Your task to perform on an android device: Set the phone to "Do not disturb". Image 0: 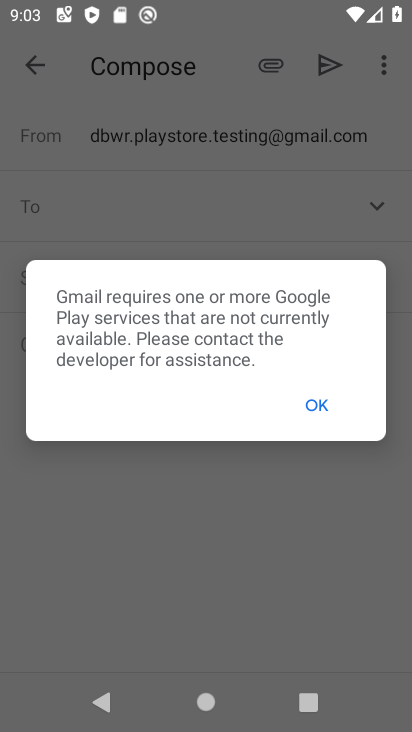
Step 0: click (308, 396)
Your task to perform on an android device: Set the phone to "Do not disturb". Image 1: 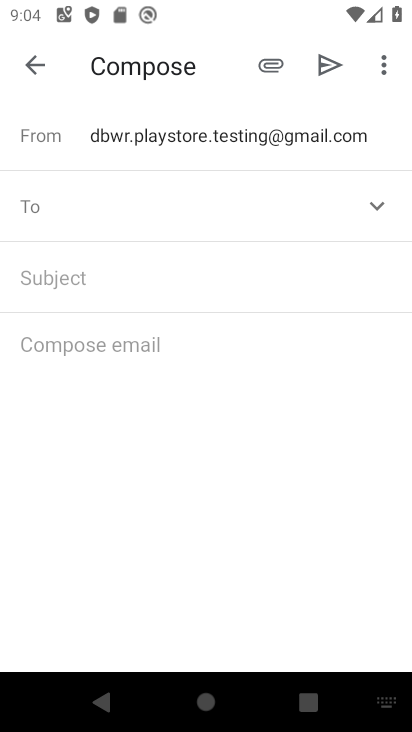
Step 1: click (25, 65)
Your task to perform on an android device: Set the phone to "Do not disturb". Image 2: 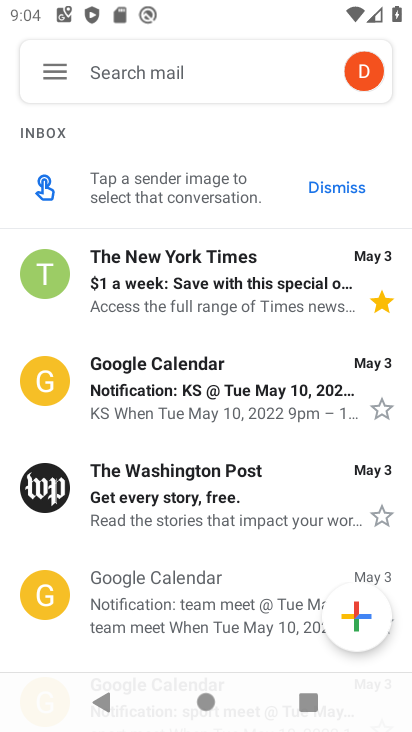
Step 2: press home button
Your task to perform on an android device: Set the phone to "Do not disturb". Image 3: 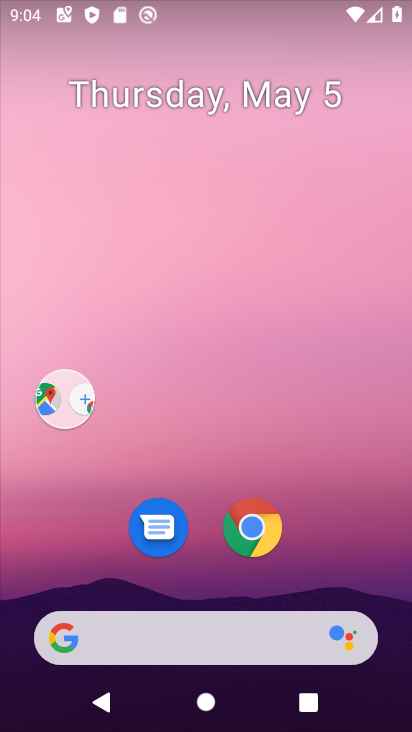
Step 3: drag from (258, 683) to (134, 85)
Your task to perform on an android device: Set the phone to "Do not disturb". Image 4: 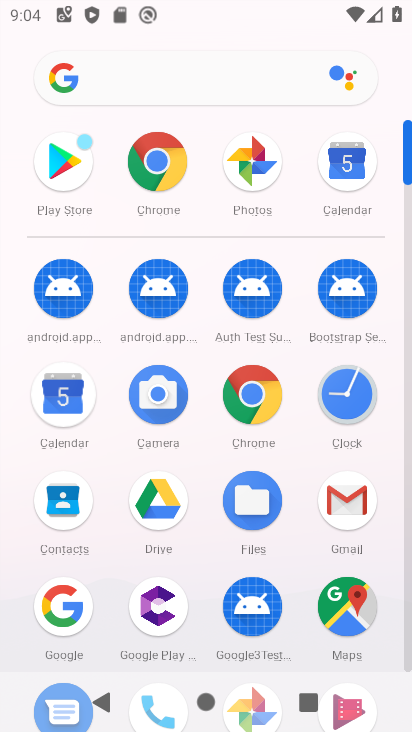
Step 4: drag from (198, 630) to (173, 236)
Your task to perform on an android device: Set the phone to "Do not disturb". Image 5: 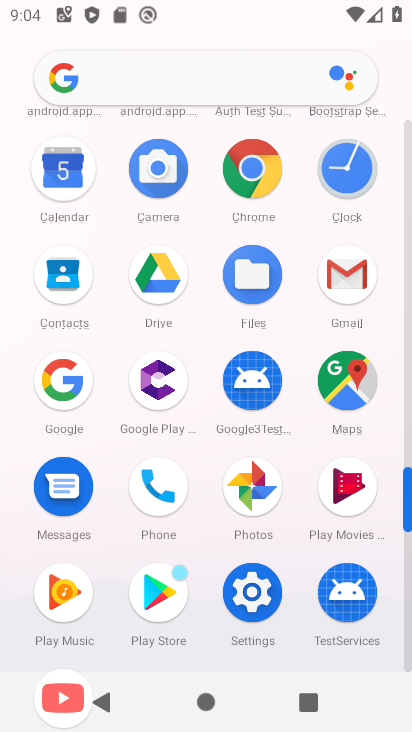
Step 5: click (242, 586)
Your task to perform on an android device: Set the phone to "Do not disturb". Image 6: 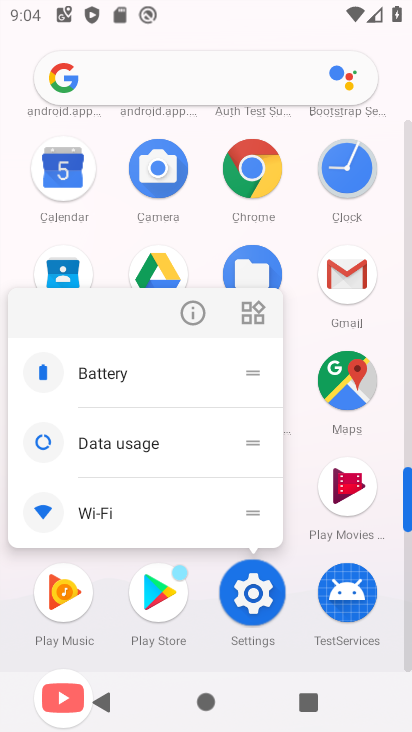
Step 6: click (242, 586)
Your task to perform on an android device: Set the phone to "Do not disturb". Image 7: 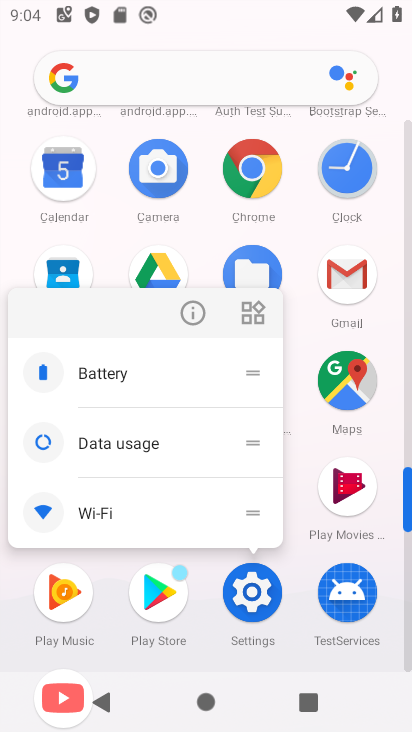
Step 7: click (260, 600)
Your task to perform on an android device: Set the phone to "Do not disturb". Image 8: 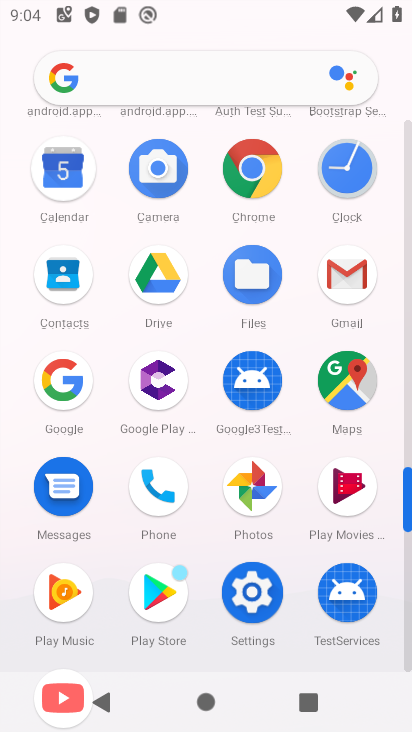
Step 8: click (261, 597)
Your task to perform on an android device: Set the phone to "Do not disturb". Image 9: 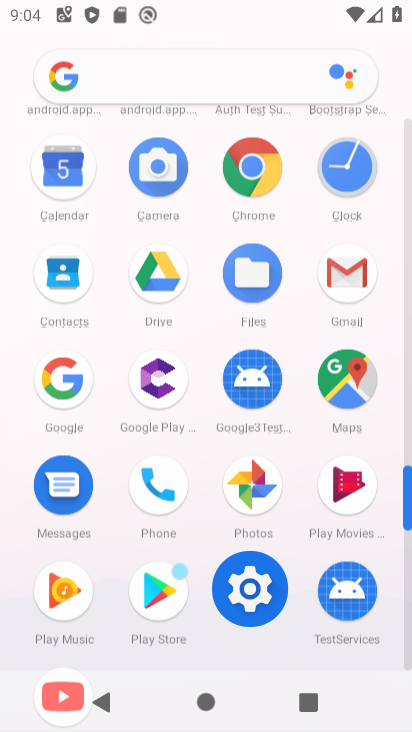
Step 9: click (261, 596)
Your task to perform on an android device: Set the phone to "Do not disturb". Image 10: 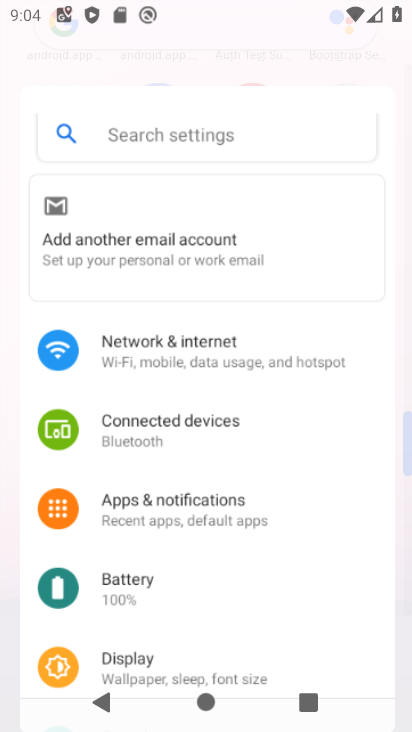
Step 10: click (263, 592)
Your task to perform on an android device: Set the phone to "Do not disturb". Image 11: 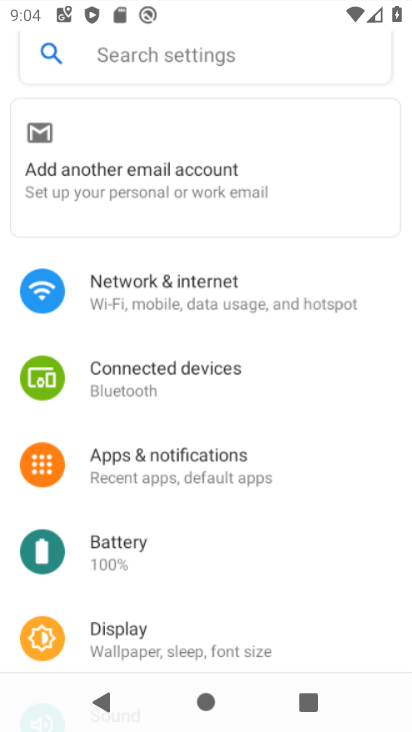
Step 11: click (266, 590)
Your task to perform on an android device: Set the phone to "Do not disturb". Image 12: 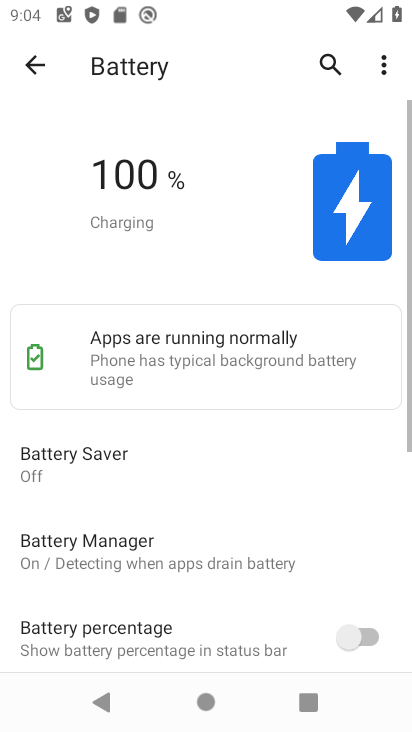
Step 12: click (43, 63)
Your task to perform on an android device: Set the phone to "Do not disturb". Image 13: 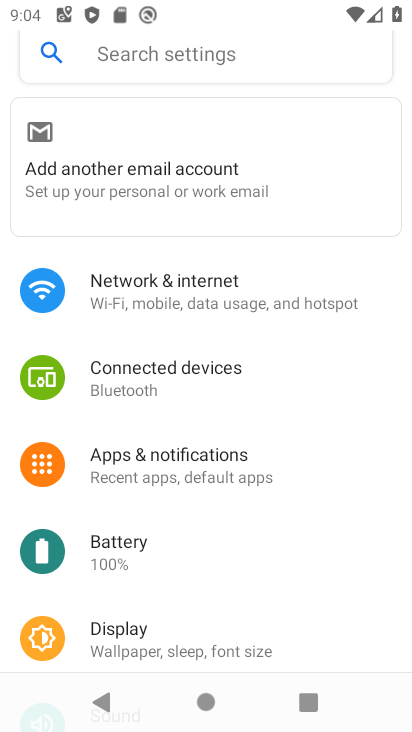
Step 13: drag from (255, 565) to (191, 147)
Your task to perform on an android device: Set the phone to "Do not disturb". Image 14: 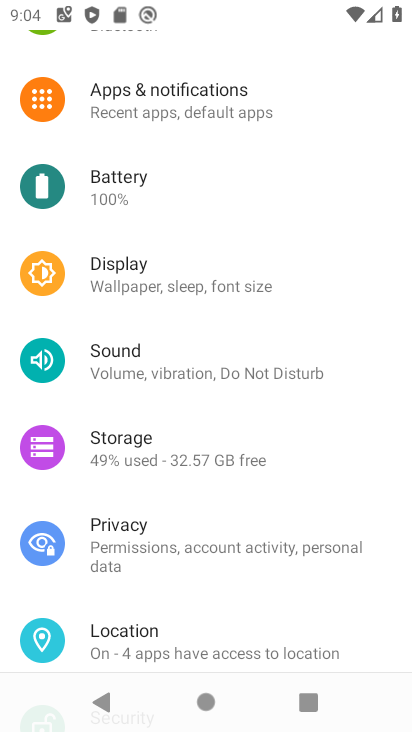
Step 14: drag from (142, 528) to (129, 109)
Your task to perform on an android device: Set the phone to "Do not disturb". Image 15: 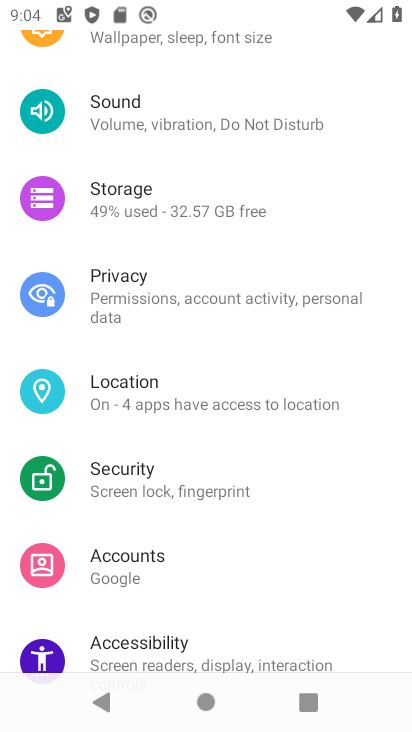
Step 15: click (147, 126)
Your task to perform on an android device: Set the phone to "Do not disturb". Image 16: 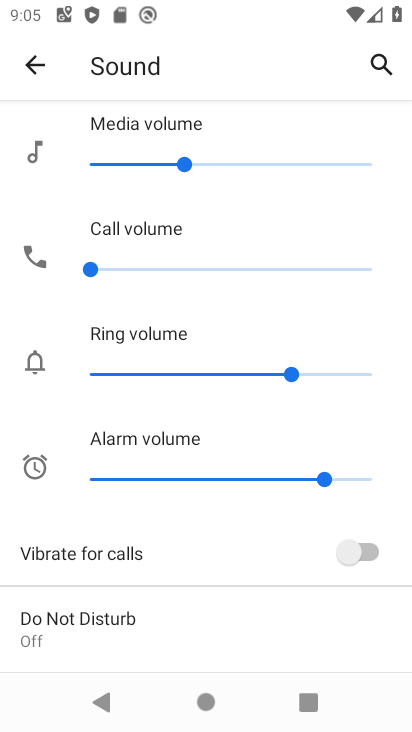
Step 16: drag from (219, 585) to (140, 166)
Your task to perform on an android device: Set the phone to "Do not disturb". Image 17: 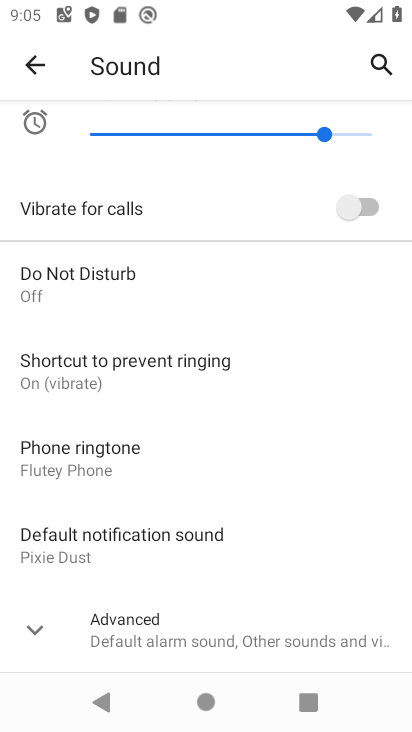
Step 17: click (55, 271)
Your task to perform on an android device: Set the phone to "Do not disturb". Image 18: 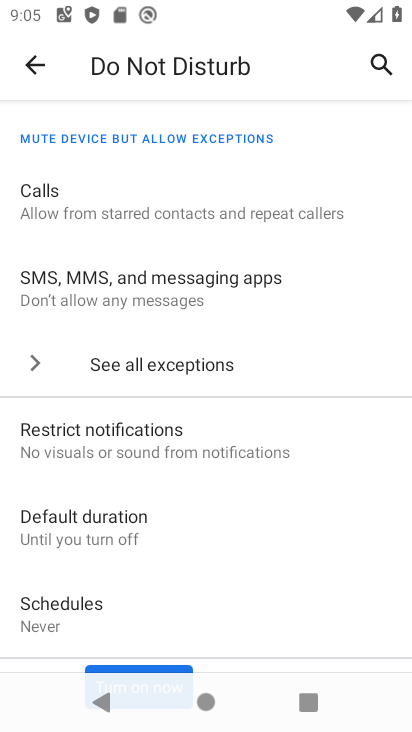
Step 18: drag from (212, 594) to (209, 106)
Your task to perform on an android device: Set the phone to "Do not disturb". Image 19: 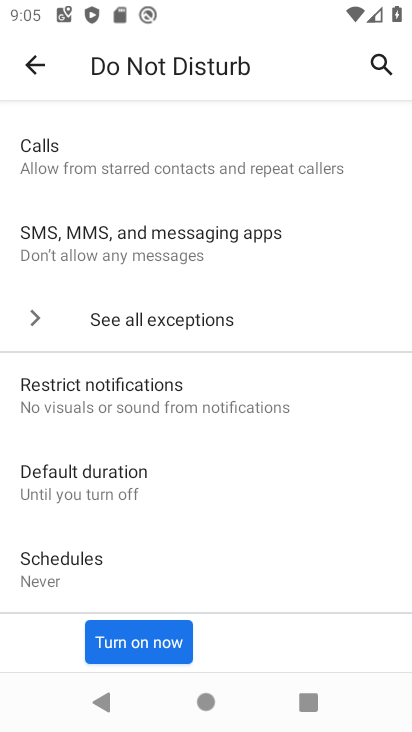
Step 19: click (142, 636)
Your task to perform on an android device: Set the phone to "Do not disturb". Image 20: 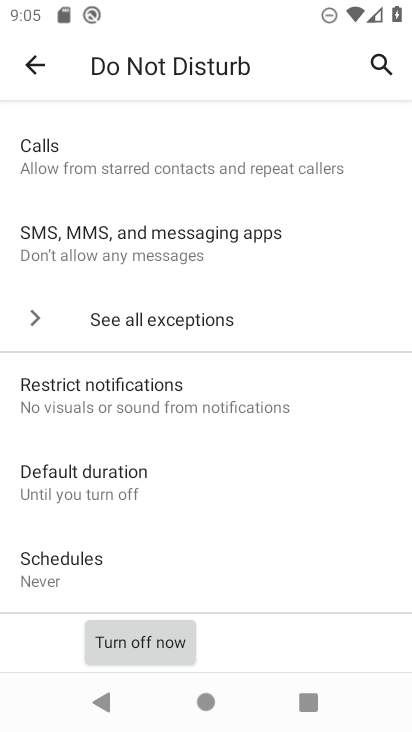
Step 20: task complete